Your task to perform on an android device: Open the map Image 0: 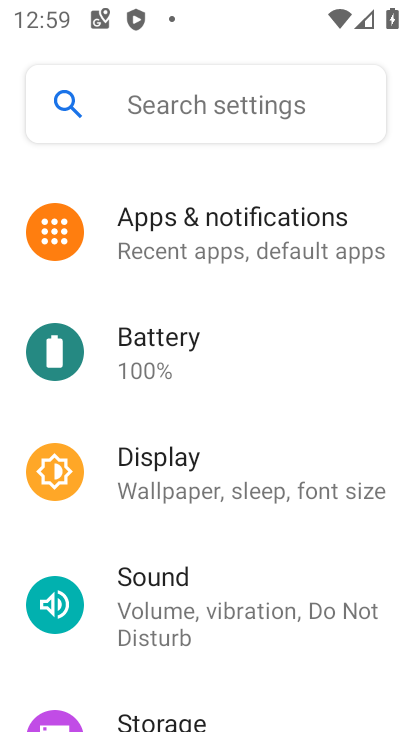
Step 0: press home button
Your task to perform on an android device: Open the map Image 1: 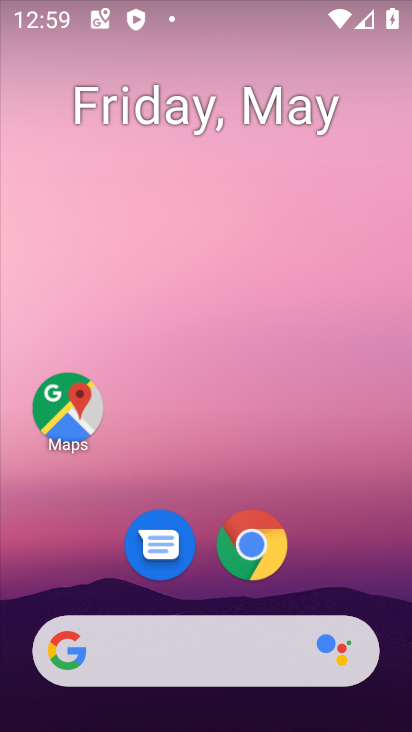
Step 1: click (61, 409)
Your task to perform on an android device: Open the map Image 2: 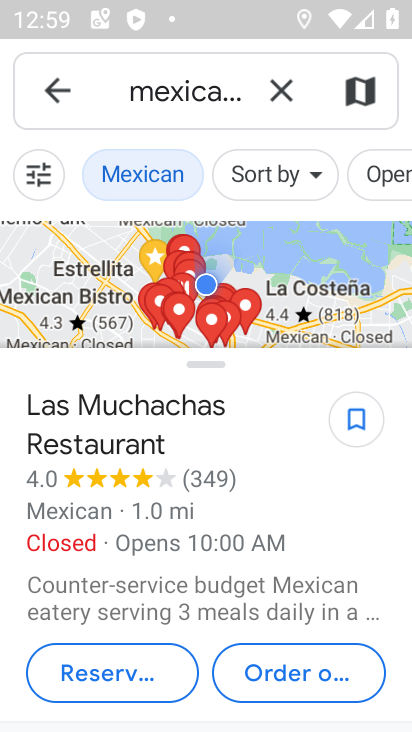
Step 2: task complete